Your task to perform on an android device: turn off airplane mode Image 0: 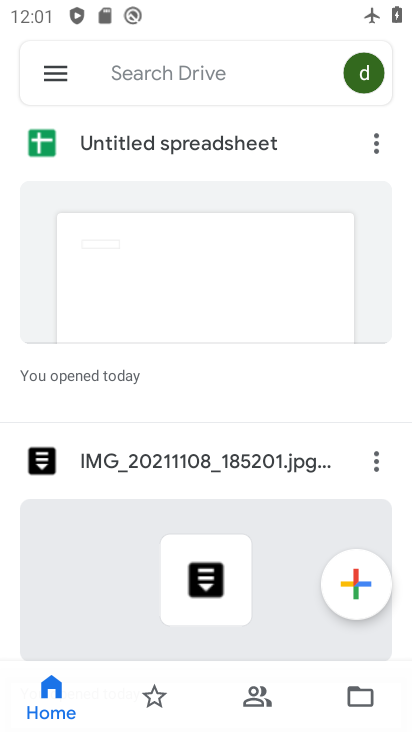
Step 0: press home button
Your task to perform on an android device: turn off airplane mode Image 1: 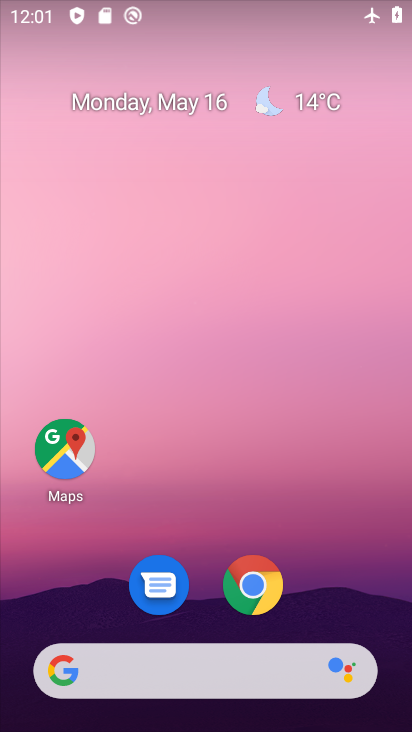
Step 1: drag from (289, 467) to (256, 39)
Your task to perform on an android device: turn off airplane mode Image 2: 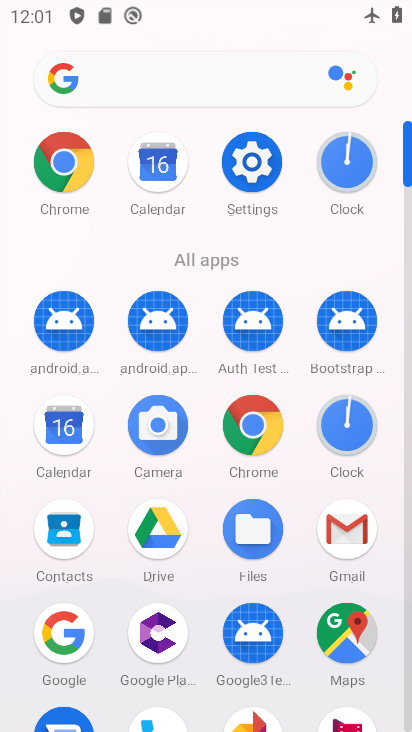
Step 2: click (244, 149)
Your task to perform on an android device: turn off airplane mode Image 3: 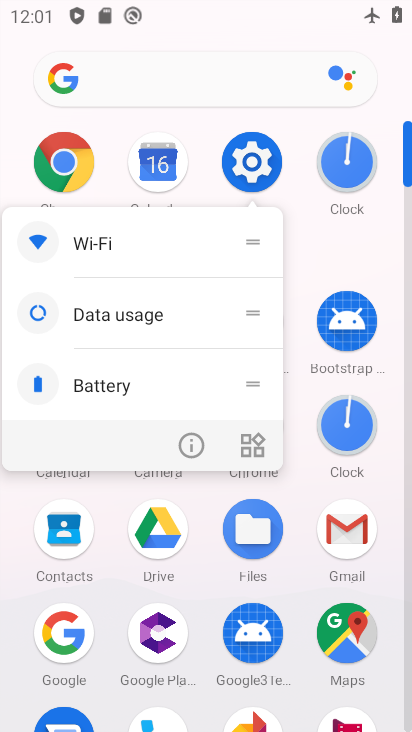
Step 3: click (244, 148)
Your task to perform on an android device: turn off airplane mode Image 4: 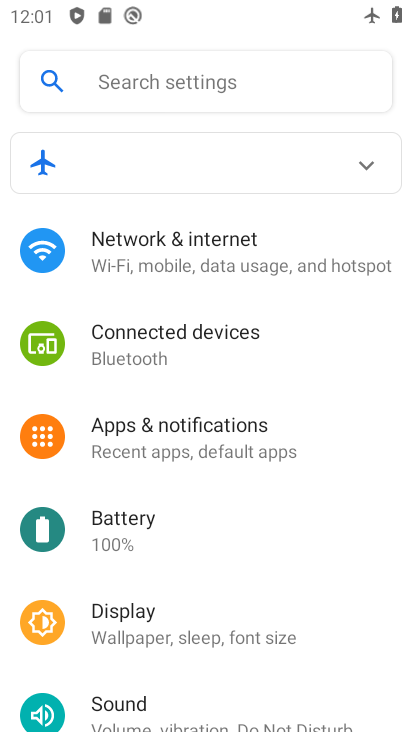
Step 4: click (234, 244)
Your task to perform on an android device: turn off airplane mode Image 5: 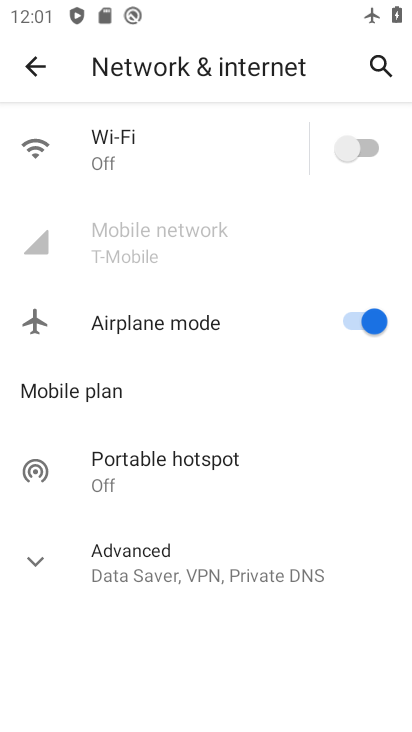
Step 5: click (349, 315)
Your task to perform on an android device: turn off airplane mode Image 6: 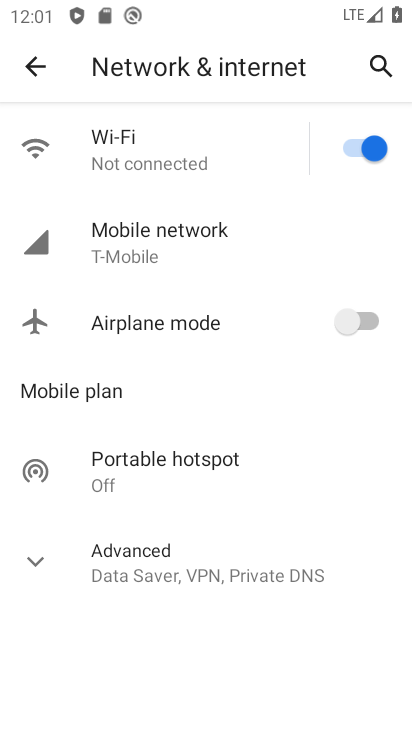
Step 6: task complete